Your task to perform on an android device: empty trash in google photos Image 0: 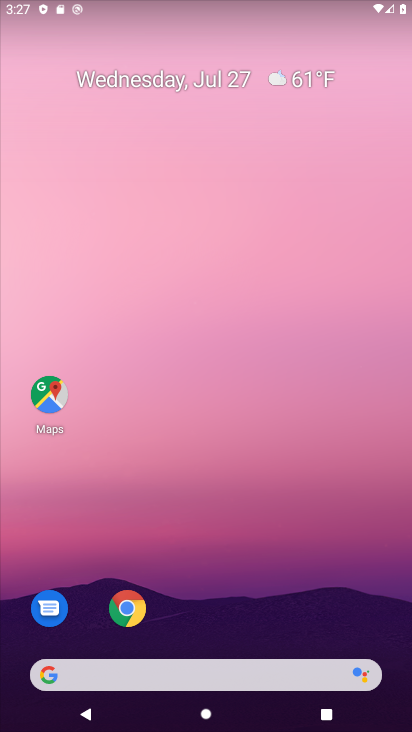
Step 0: drag from (240, 725) to (234, 121)
Your task to perform on an android device: empty trash in google photos Image 1: 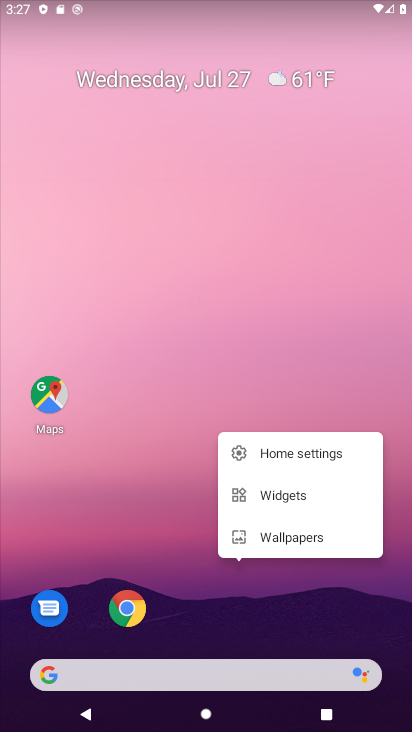
Step 1: click (195, 333)
Your task to perform on an android device: empty trash in google photos Image 2: 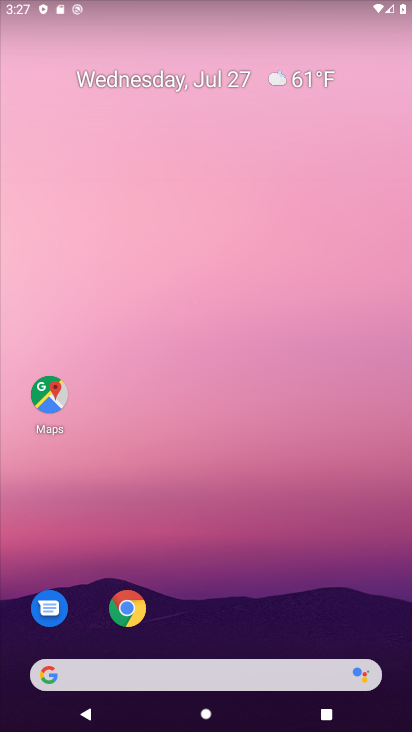
Step 2: drag from (238, 725) to (227, 100)
Your task to perform on an android device: empty trash in google photos Image 3: 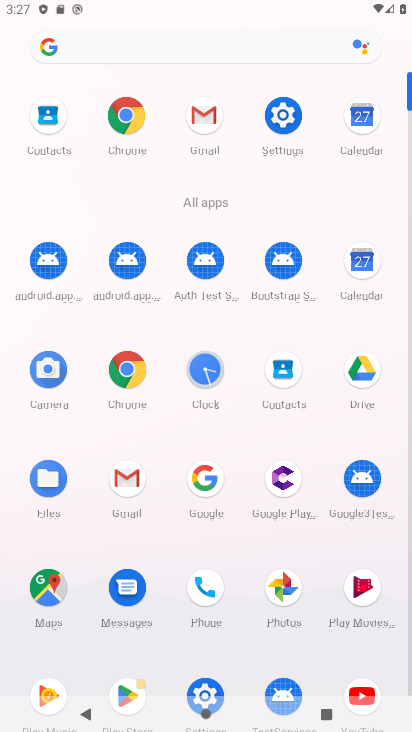
Step 3: click (283, 585)
Your task to perform on an android device: empty trash in google photos Image 4: 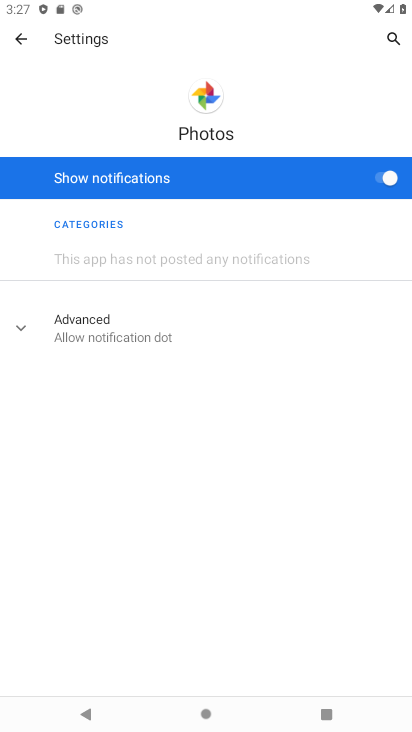
Step 4: click (278, 597)
Your task to perform on an android device: empty trash in google photos Image 5: 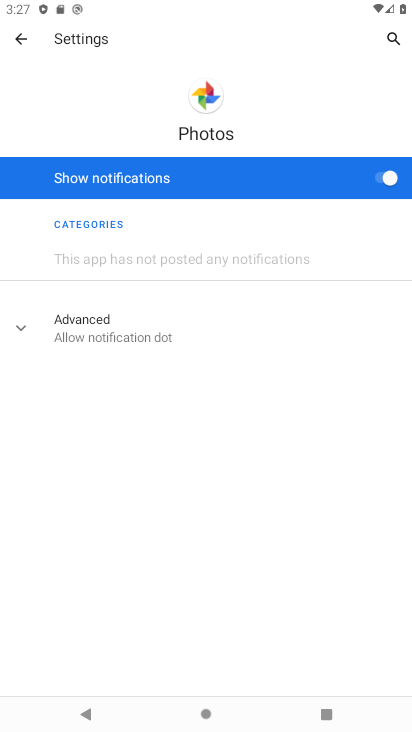
Step 5: click (19, 35)
Your task to perform on an android device: empty trash in google photos Image 6: 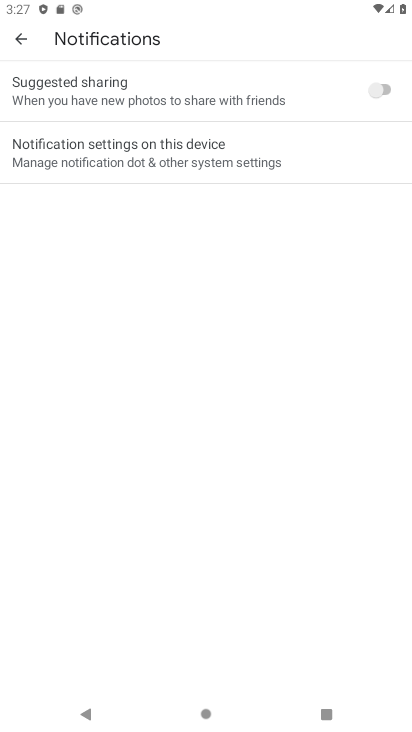
Step 6: click (19, 37)
Your task to perform on an android device: empty trash in google photos Image 7: 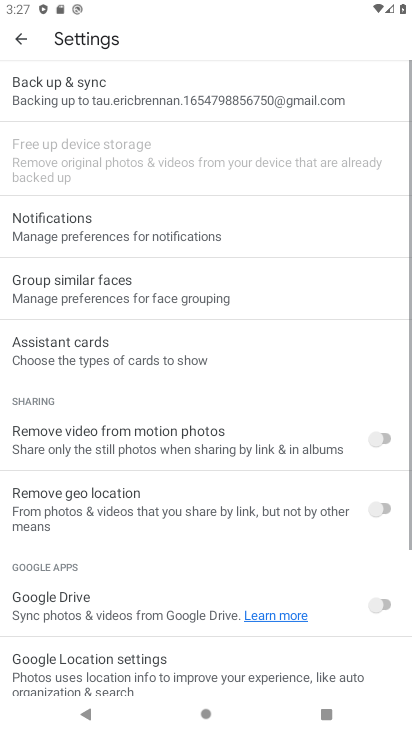
Step 7: click (19, 37)
Your task to perform on an android device: empty trash in google photos Image 8: 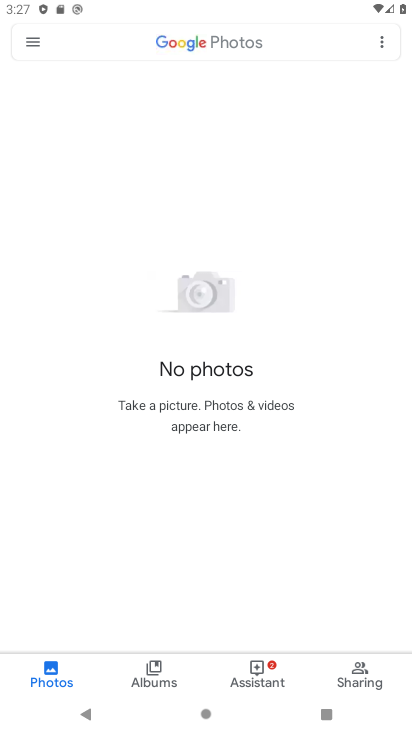
Step 8: click (32, 40)
Your task to perform on an android device: empty trash in google photos Image 9: 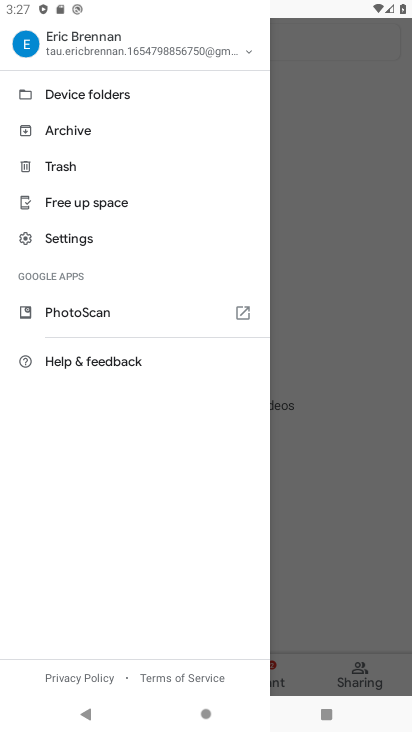
Step 9: click (56, 167)
Your task to perform on an android device: empty trash in google photos Image 10: 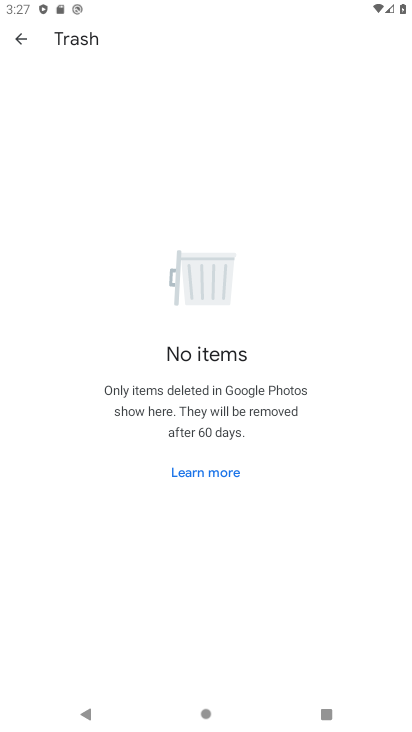
Step 10: task complete